Your task to perform on an android device: find snoozed emails in the gmail app Image 0: 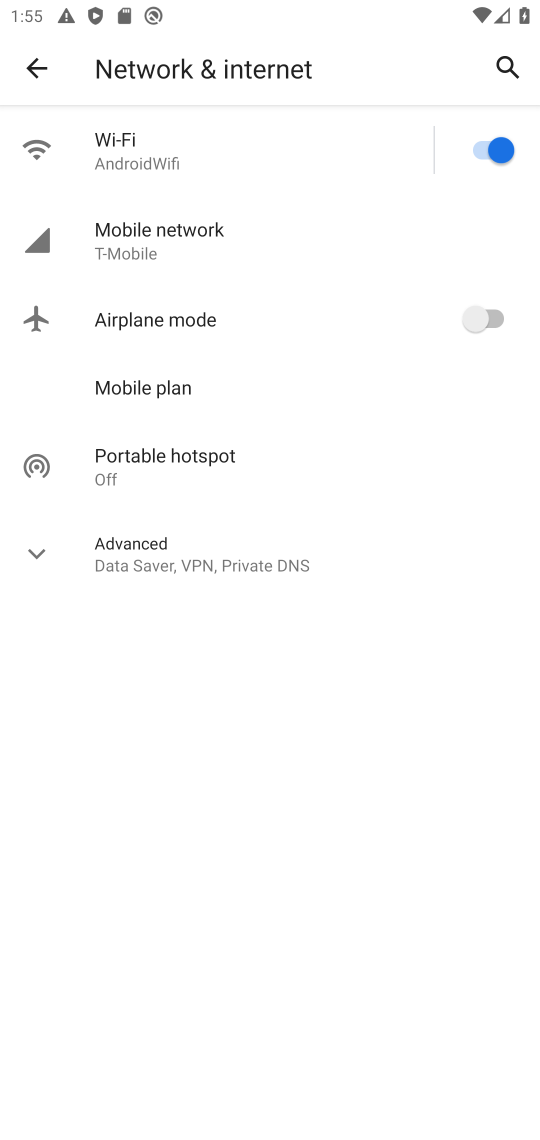
Step 0: press home button
Your task to perform on an android device: find snoozed emails in the gmail app Image 1: 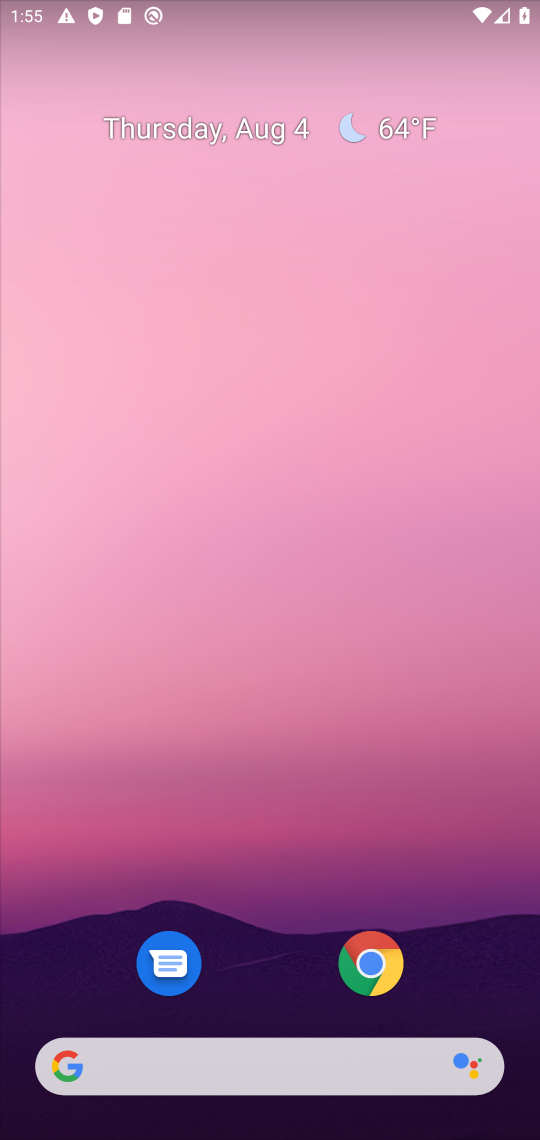
Step 1: drag from (244, 1058) to (230, 126)
Your task to perform on an android device: find snoozed emails in the gmail app Image 2: 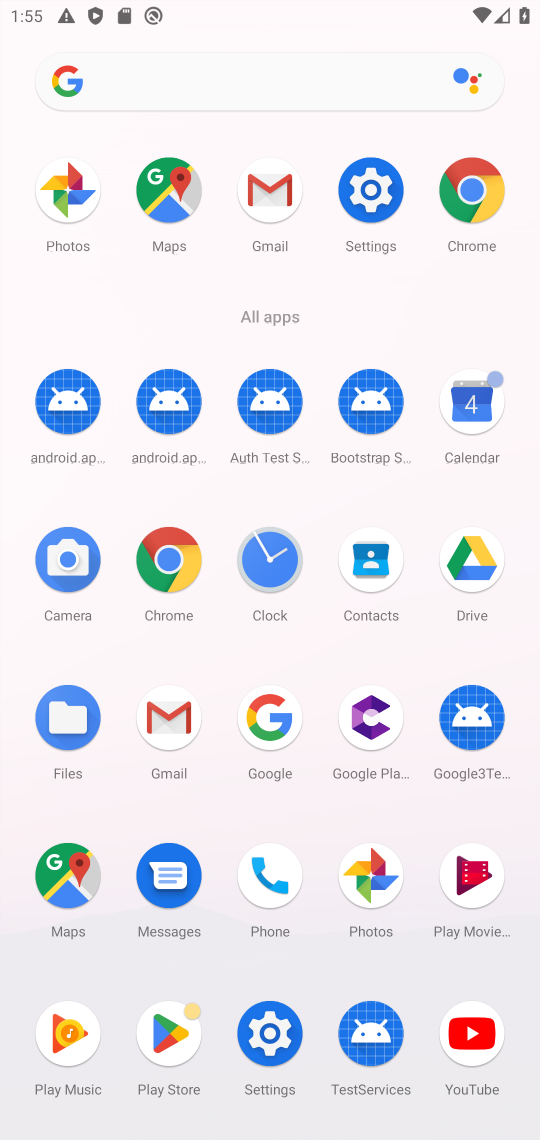
Step 2: click (251, 188)
Your task to perform on an android device: find snoozed emails in the gmail app Image 3: 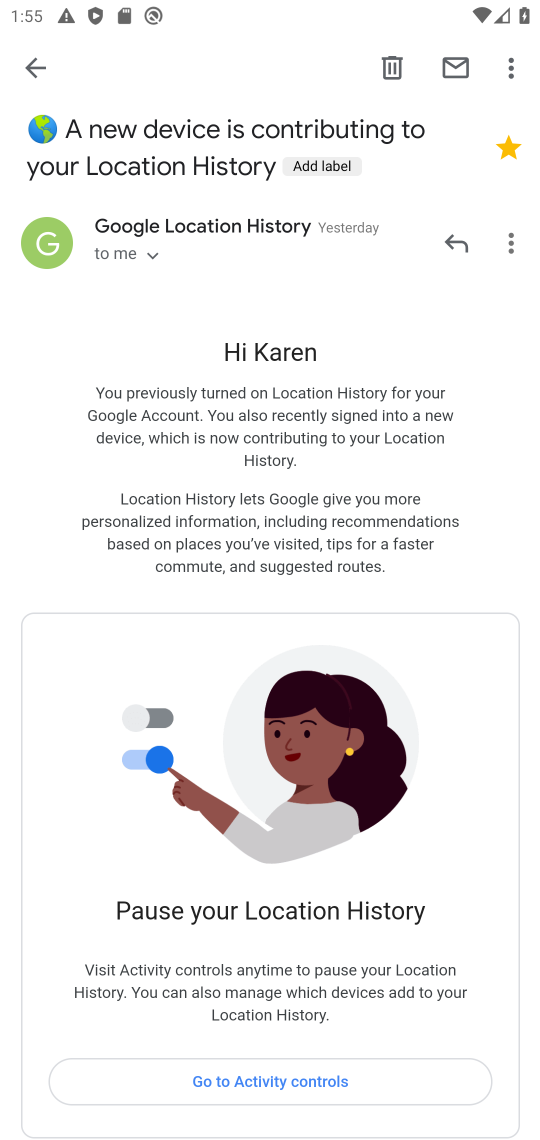
Step 3: click (32, 82)
Your task to perform on an android device: find snoozed emails in the gmail app Image 4: 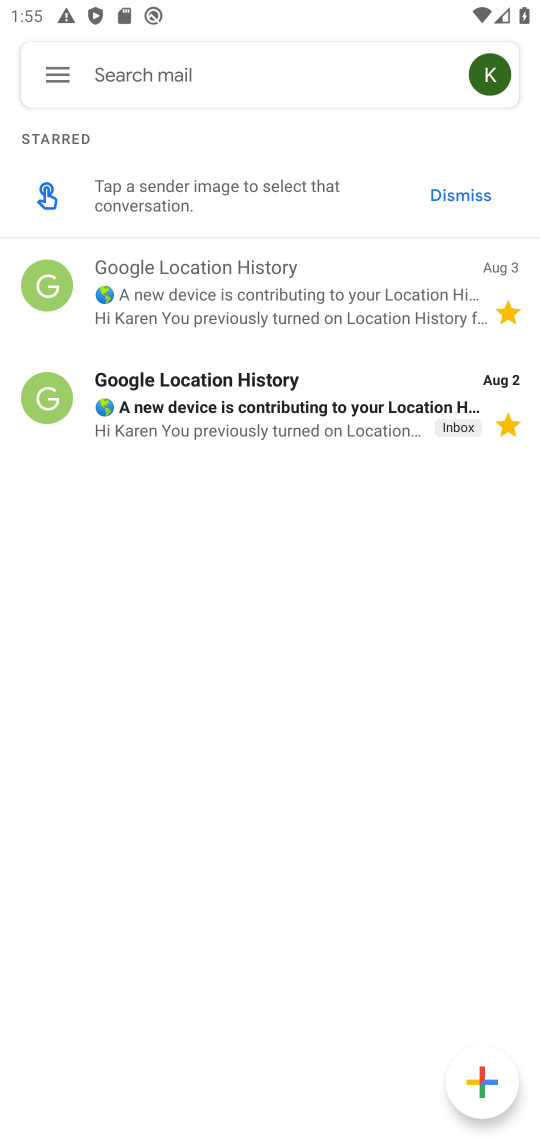
Step 4: click (61, 77)
Your task to perform on an android device: find snoozed emails in the gmail app Image 5: 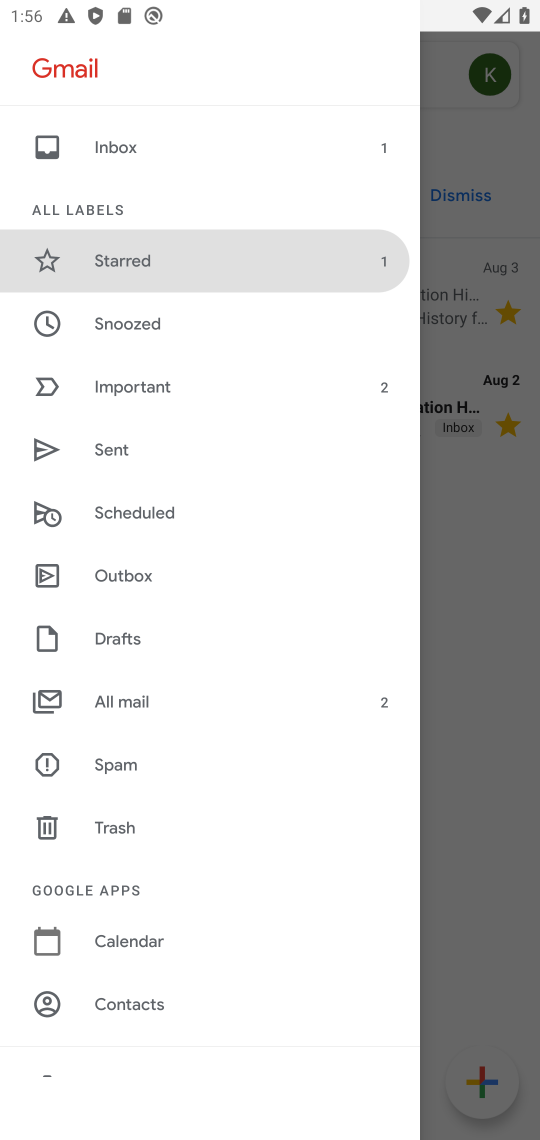
Step 5: click (150, 320)
Your task to perform on an android device: find snoozed emails in the gmail app Image 6: 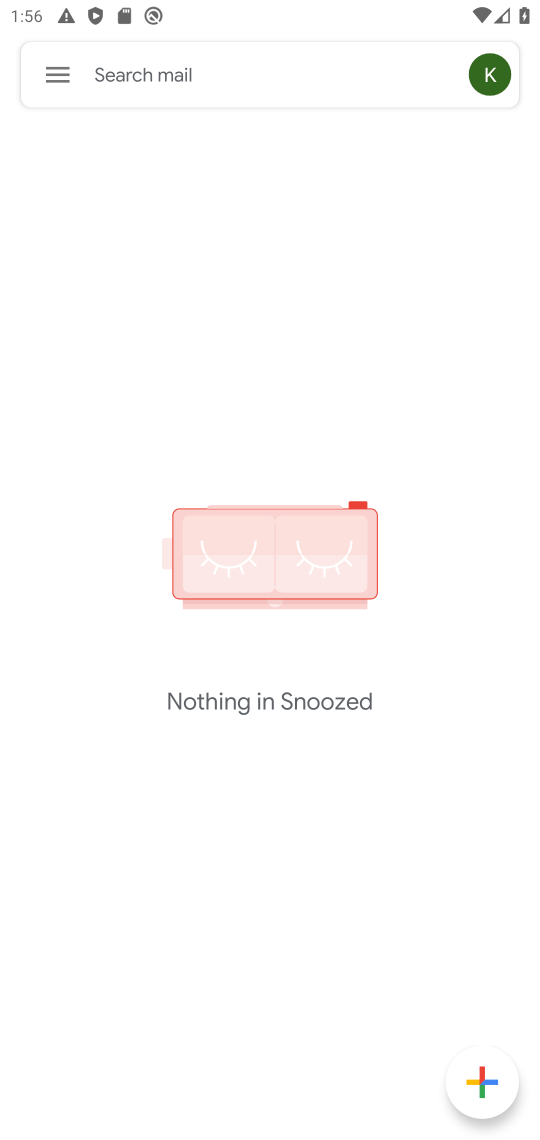
Step 6: task complete